Your task to perform on an android device: set an alarm Image 0: 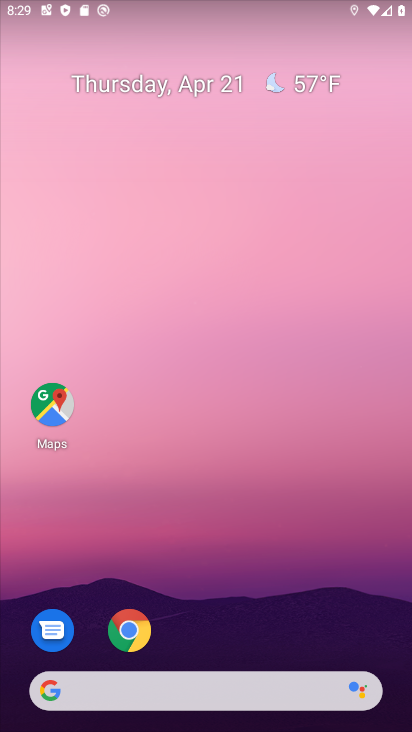
Step 0: drag from (306, 631) to (205, 43)
Your task to perform on an android device: set an alarm Image 1: 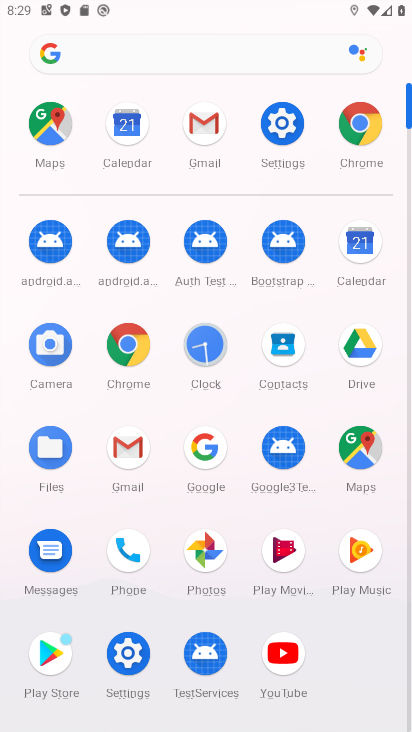
Step 1: click (202, 342)
Your task to perform on an android device: set an alarm Image 2: 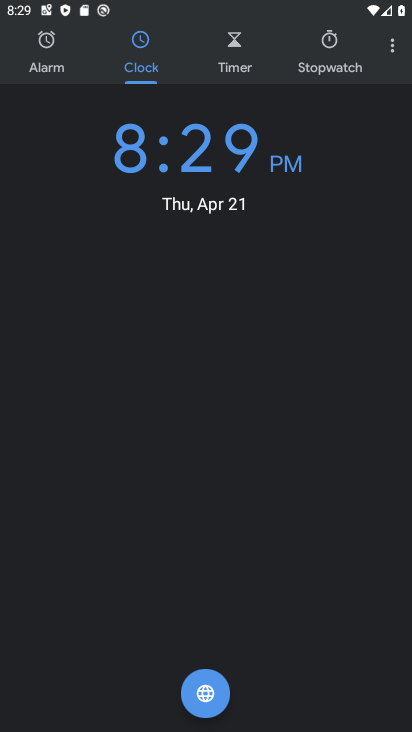
Step 2: click (54, 40)
Your task to perform on an android device: set an alarm Image 3: 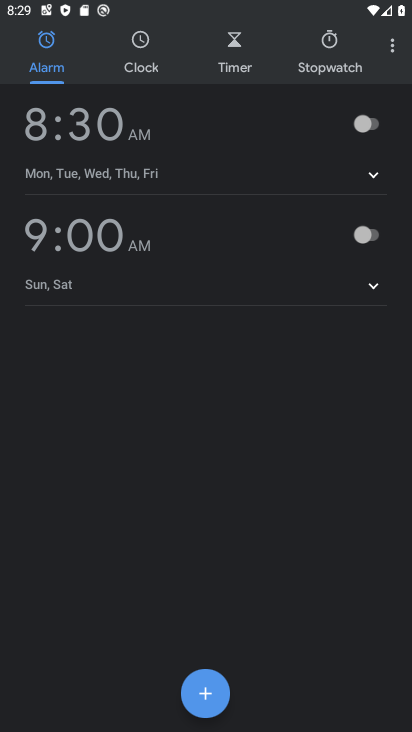
Step 3: click (367, 136)
Your task to perform on an android device: set an alarm Image 4: 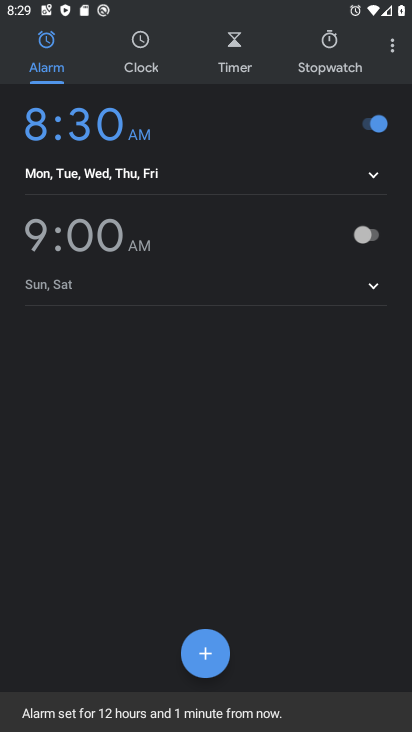
Step 4: task complete